Your task to perform on an android device: open app "Facebook Messenger" (install if not already installed) and go to login screen Image 0: 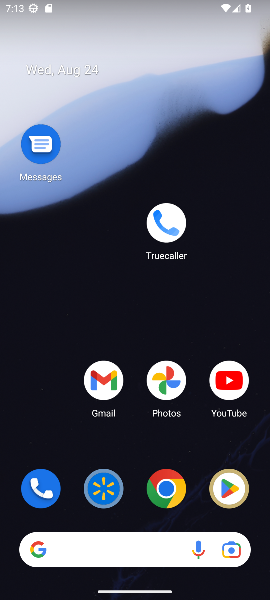
Step 0: click (237, 481)
Your task to perform on an android device: open app "Facebook Messenger" (install if not already installed) and go to login screen Image 1: 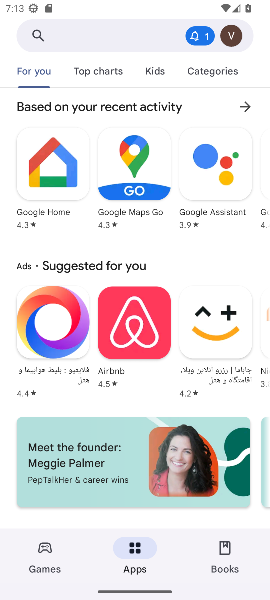
Step 1: click (160, 39)
Your task to perform on an android device: open app "Facebook Messenger" (install if not already installed) and go to login screen Image 2: 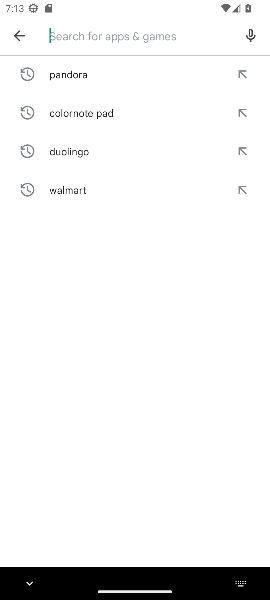
Step 2: type "facebook"
Your task to perform on an android device: open app "Facebook Messenger" (install if not already installed) and go to login screen Image 3: 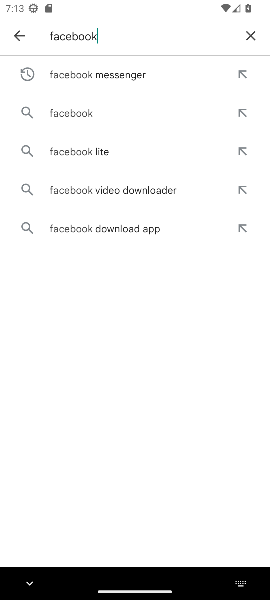
Step 3: click (146, 90)
Your task to perform on an android device: open app "Facebook Messenger" (install if not already installed) and go to login screen Image 4: 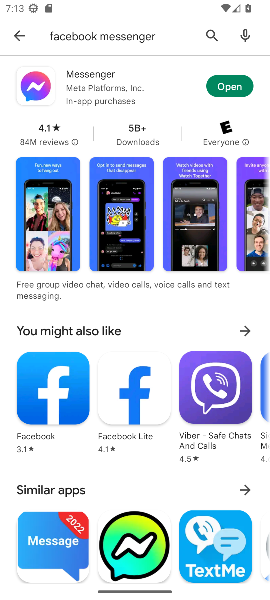
Step 4: click (217, 87)
Your task to perform on an android device: open app "Facebook Messenger" (install if not already installed) and go to login screen Image 5: 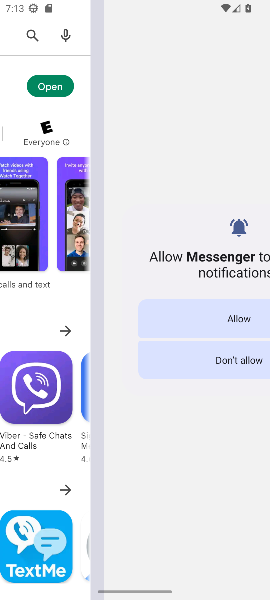
Step 5: task complete